Your task to perform on an android device: Open settings on Google Maps Image 0: 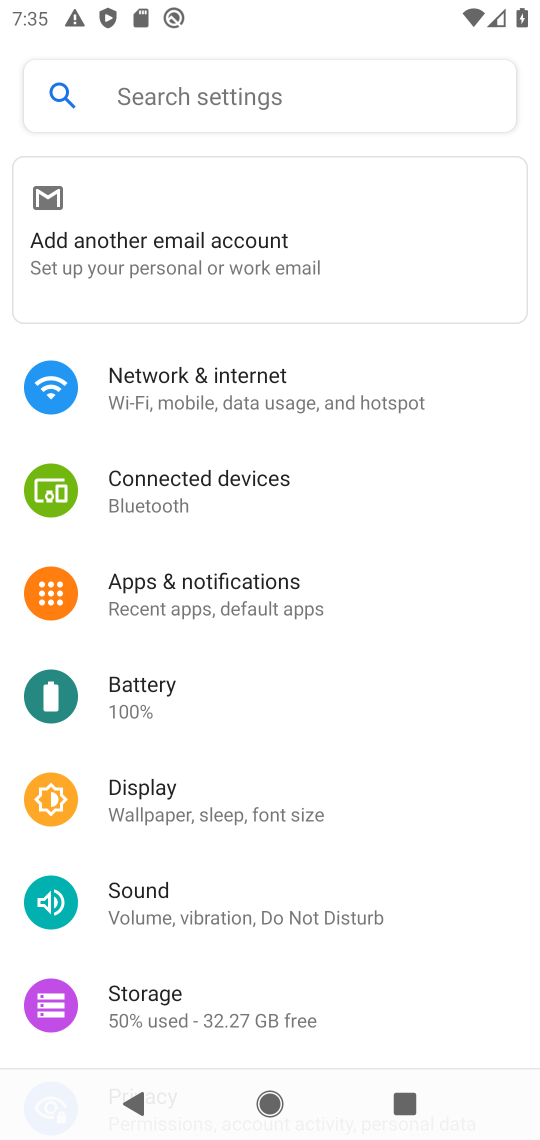
Step 0: press home button
Your task to perform on an android device: Open settings on Google Maps Image 1: 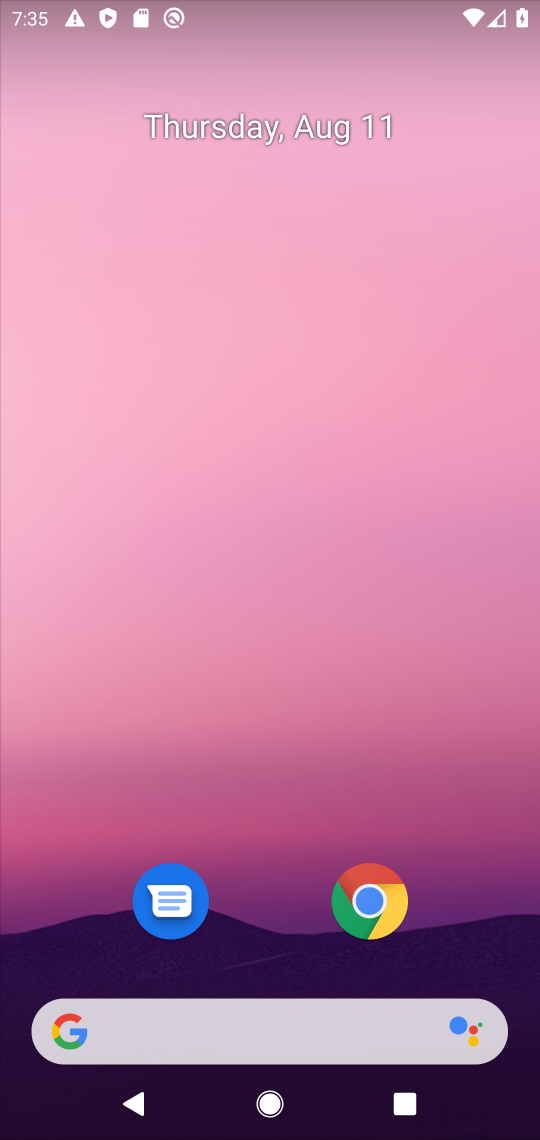
Step 1: drag from (267, 908) to (494, 143)
Your task to perform on an android device: Open settings on Google Maps Image 2: 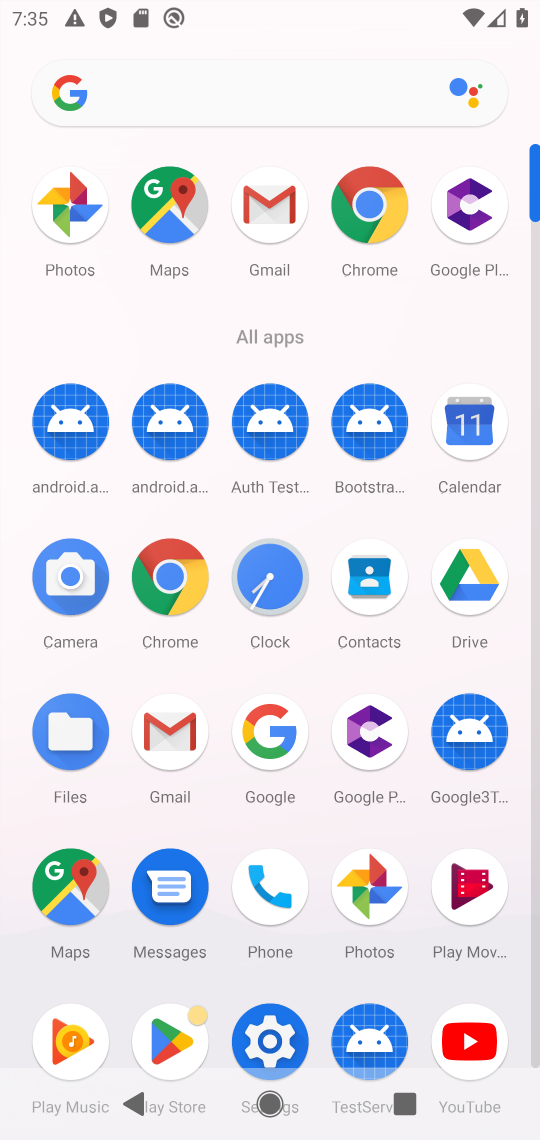
Step 2: click (73, 888)
Your task to perform on an android device: Open settings on Google Maps Image 3: 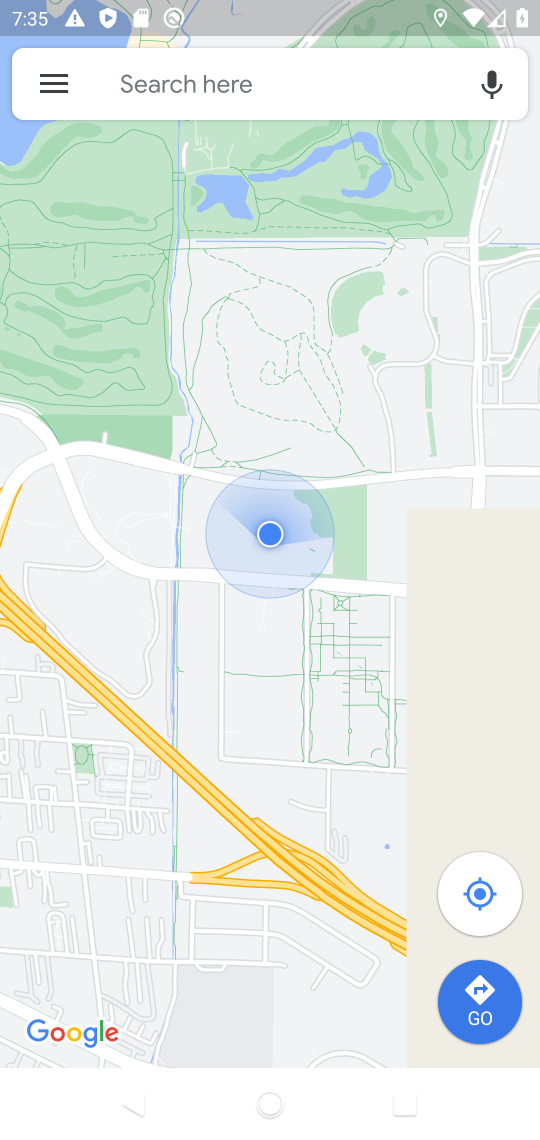
Step 3: click (66, 83)
Your task to perform on an android device: Open settings on Google Maps Image 4: 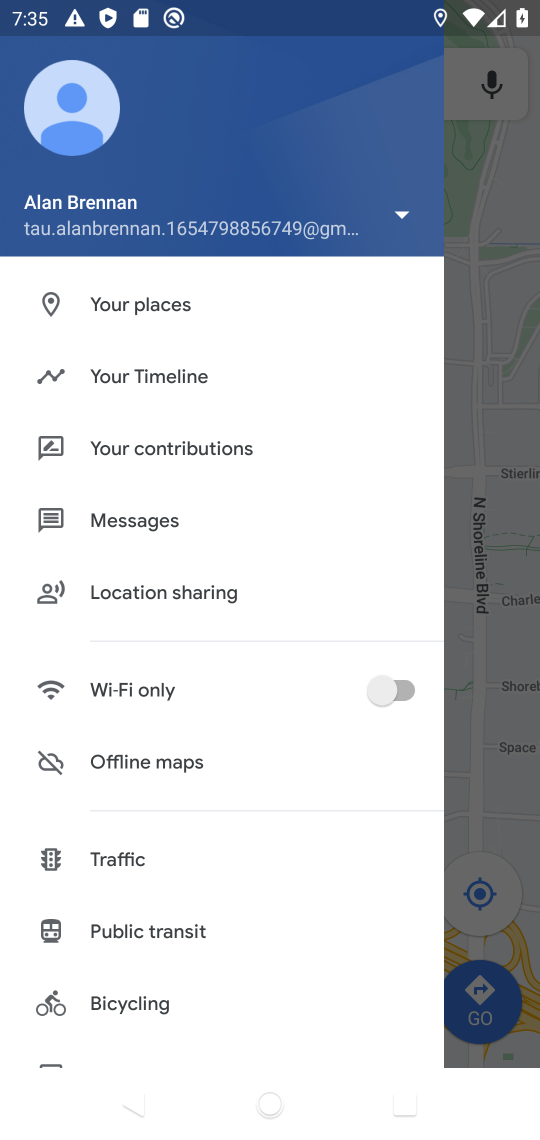
Step 4: drag from (228, 1009) to (369, 268)
Your task to perform on an android device: Open settings on Google Maps Image 5: 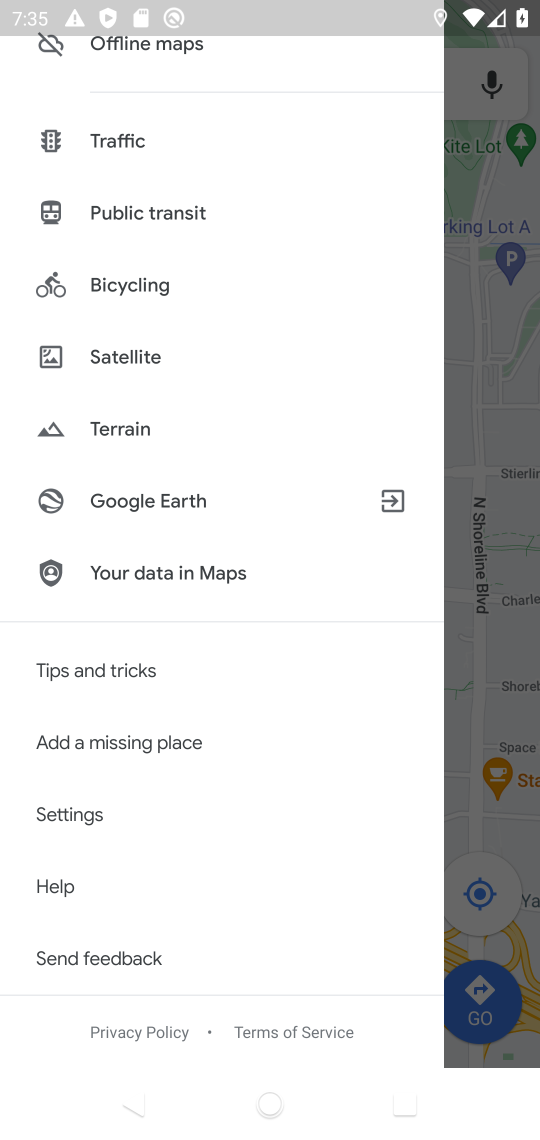
Step 5: click (81, 810)
Your task to perform on an android device: Open settings on Google Maps Image 6: 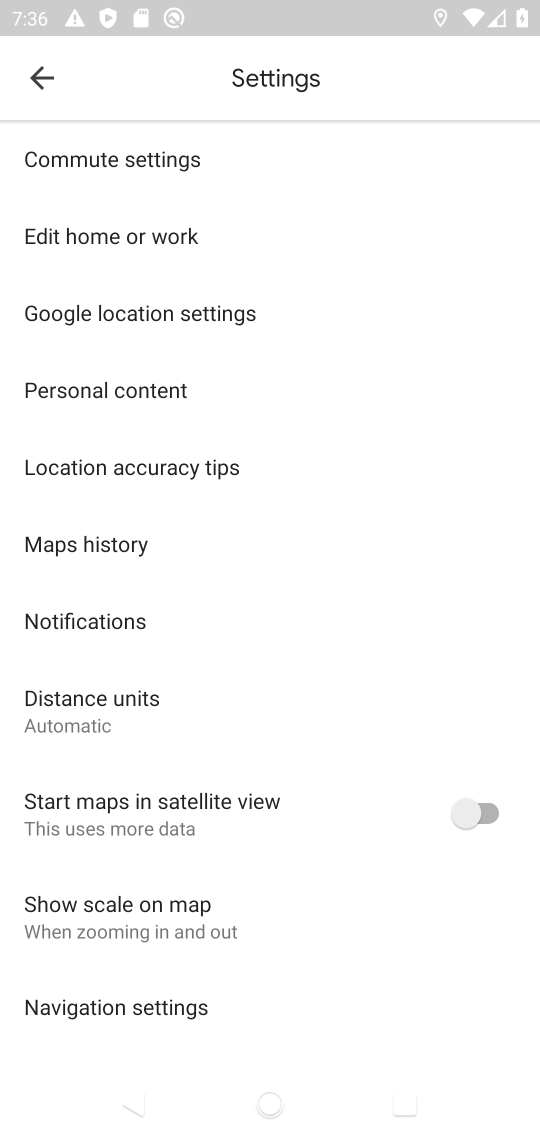
Step 6: task complete